Your task to perform on an android device: change text size in settings app Image 0: 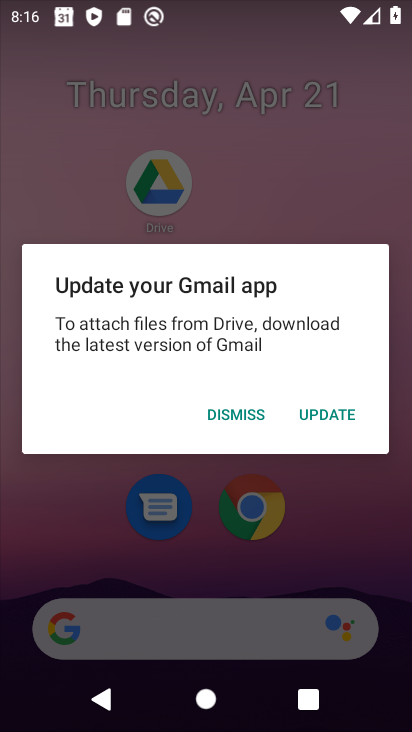
Step 0: press home button
Your task to perform on an android device: change text size in settings app Image 1: 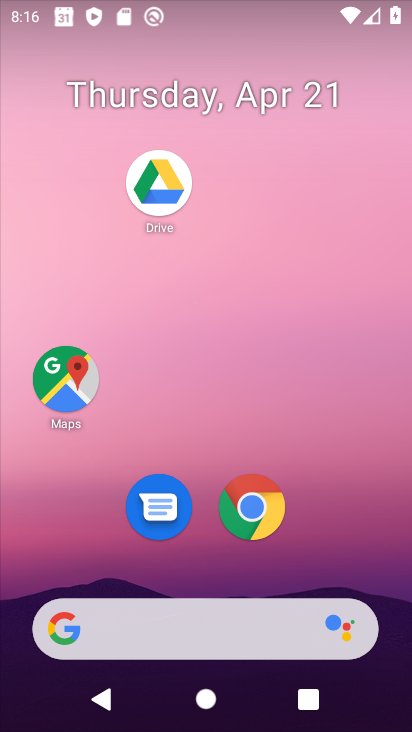
Step 1: drag from (355, 538) to (339, 135)
Your task to perform on an android device: change text size in settings app Image 2: 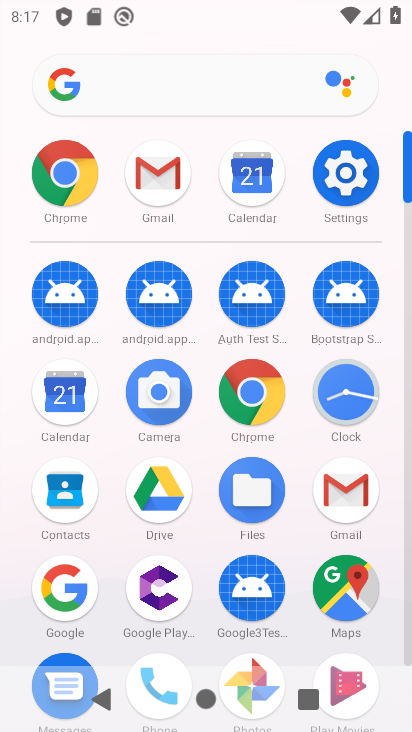
Step 2: click (342, 169)
Your task to perform on an android device: change text size in settings app Image 3: 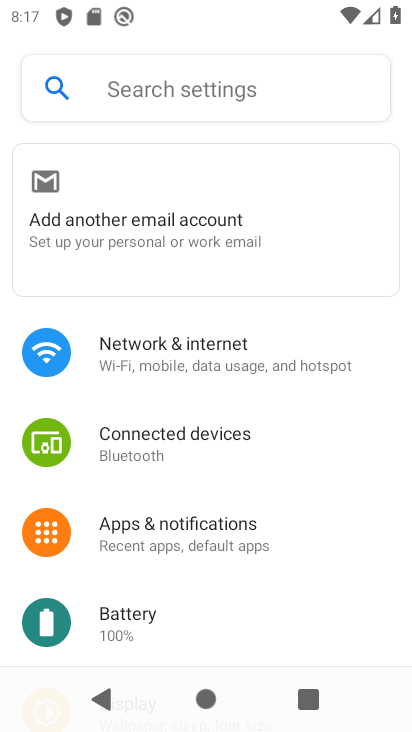
Step 3: drag from (360, 573) to (364, 404)
Your task to perform on an android device: change text size in settings app Image 4: 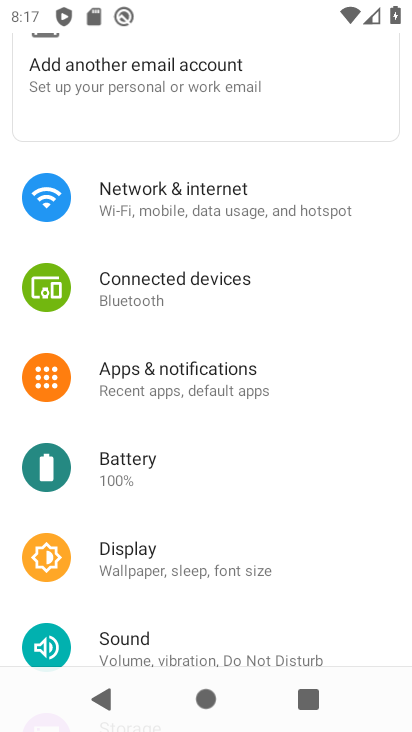
Step 4: drag from (343, 589) to (342, 457)
Your task to perform on an android device: change text size in settings app Image 5: 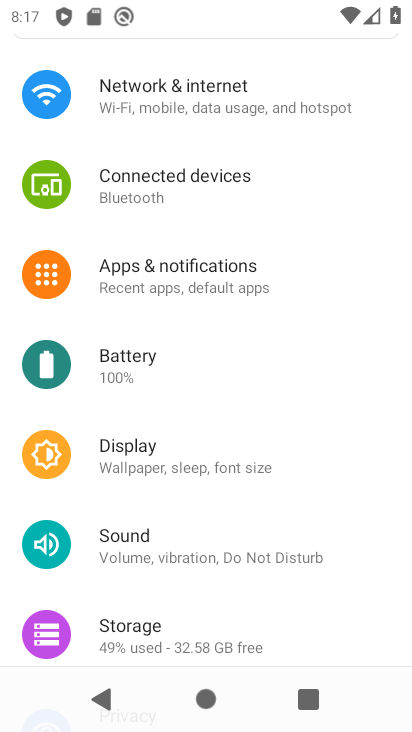
Step 5: drag from (352, 636) to (370, 474)
Your task to perform on an android device: change text size in settings app Image 6: 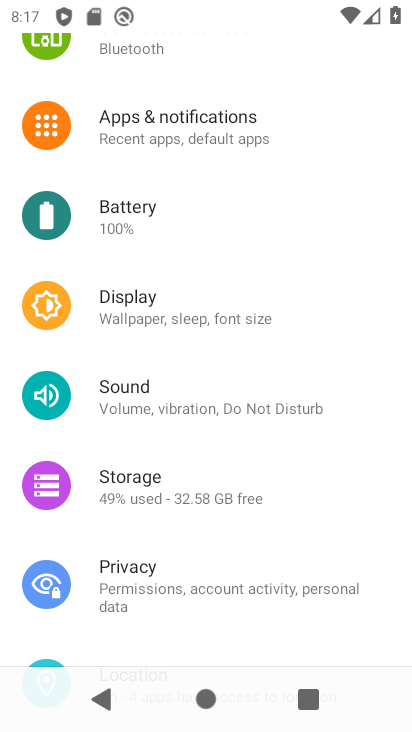
Step 6: drag from (365, 616) to (377, 438)
Your task to perform on an android device: change text size in settings app Image 7: 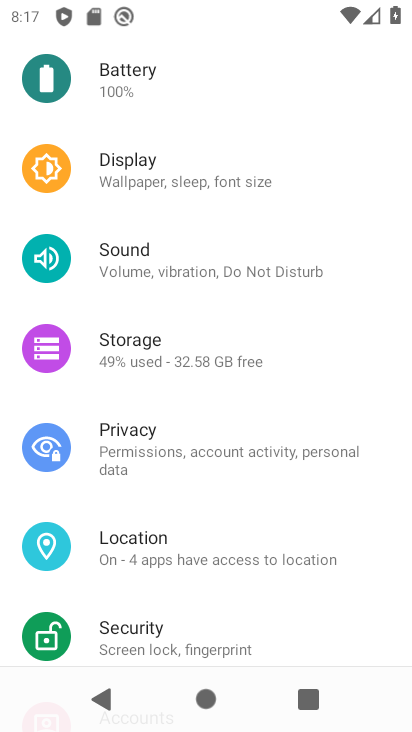
Step 7: drag from (373, 557) to (380, 373)
Your task to perform on an android device: change text size in settings app Image 8: 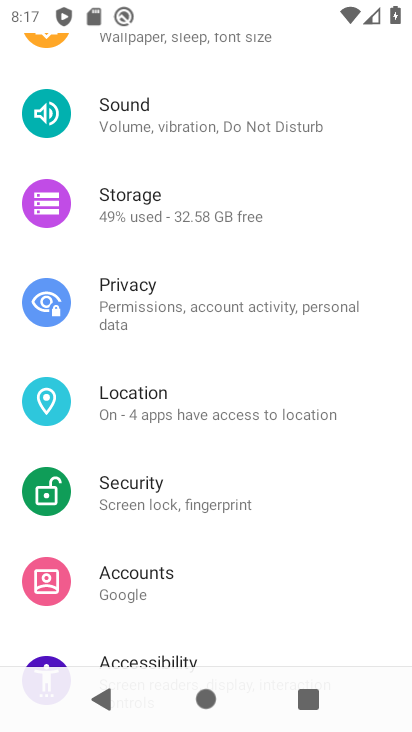
Step 8: drag from (361, 551) to (372, 349)
Your task to perform on an android device: change text size in settings app Image 9: 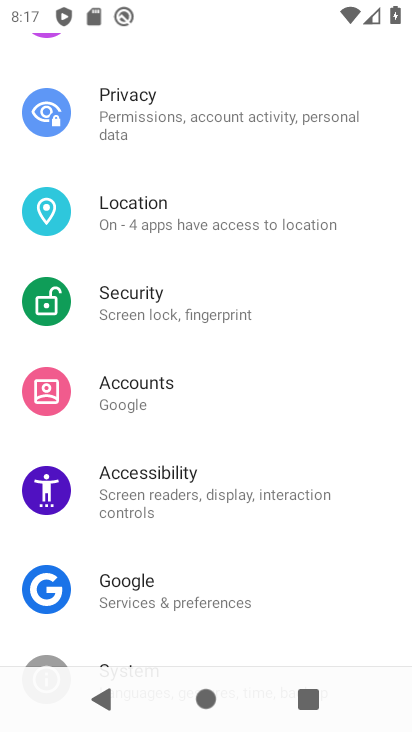
Step 9: drag from (355, 581) to (374, 348)
Your task to perform on an android device: change text size in settings app Image 10: 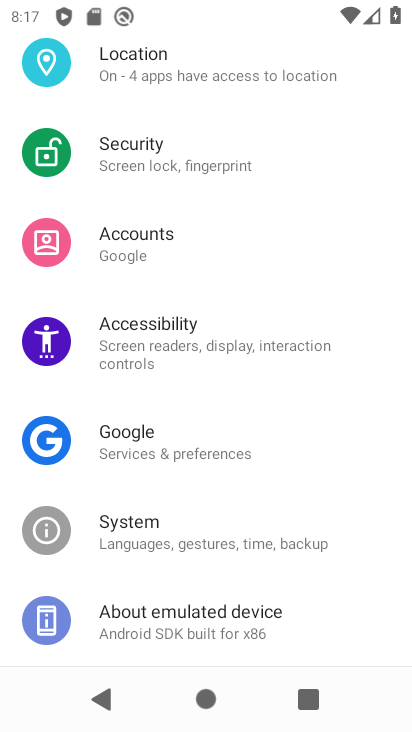
Step 10: drag from (374, 284) to (390, 430)
Your task to perform on an android device: change text size in settings app Image 11: 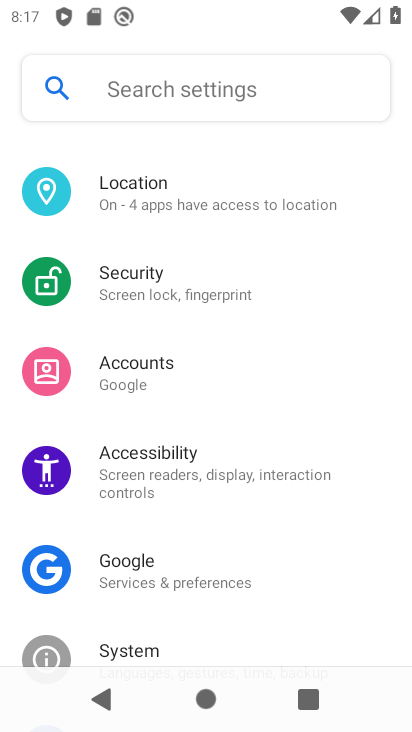
Step 11: drag from (375, 309) to (364, 458)
Your task to perform on an android device: change text size in settings app Image 12: 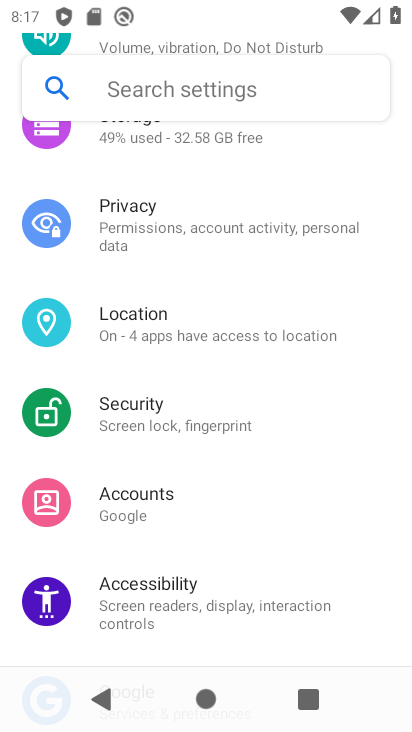
Step 12: drag from (373, 304) to (367, 445)
Your task to perform on an android device: change text size in settings app Image 13: 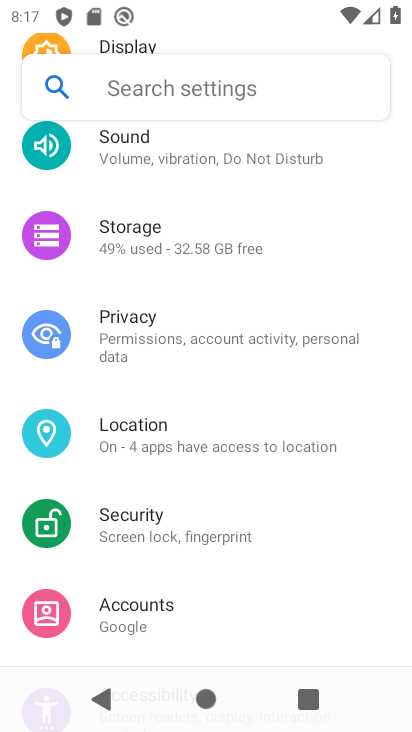
Step 13: drag from (374, 283) to (368, 445)
Your task to perform on an android device: change text size in settings app Image 14: 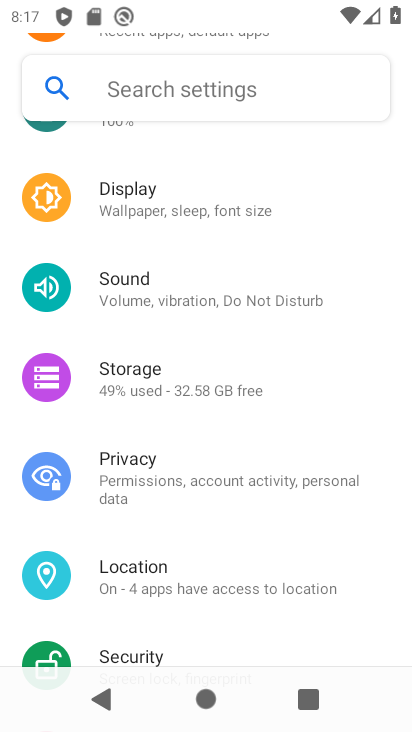
Step 14: drag from (371, 267) to (378, 398)
Your task to perform on an android device: change text size in settings app Image 15: 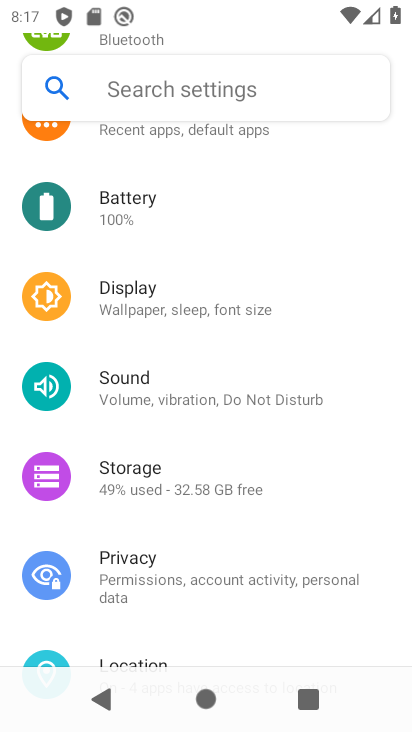
Step 15: drag from (378, 282) to (373, 413)
Your task to perform on an android device: change text size in settings app Image 16: 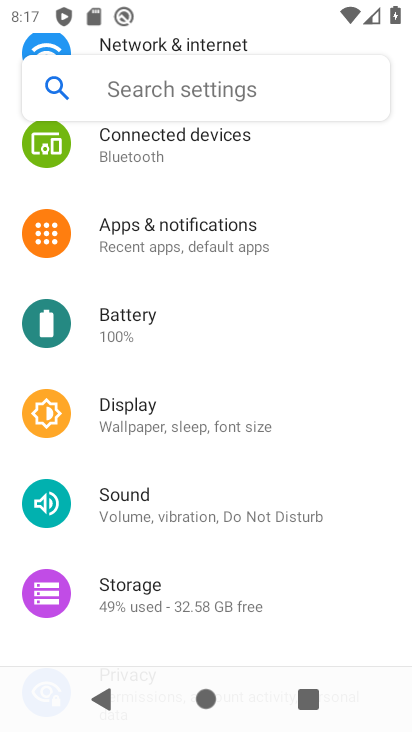
Step 16: click (233, 406)
Your task to perform on an android device: change text size in settings app Image 17: 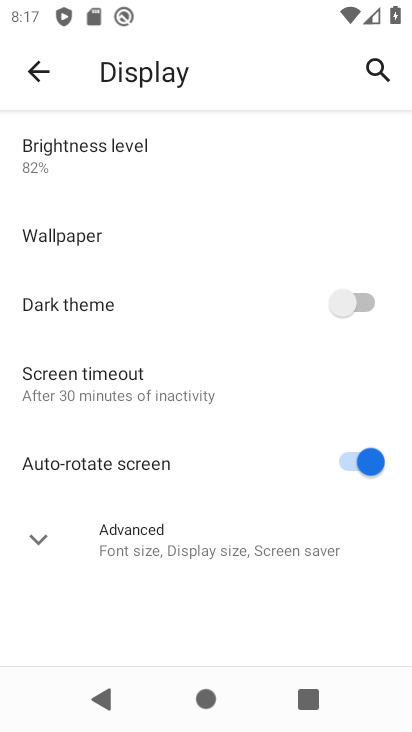
Step 17: click (199, 546)
Your task to perform on an android device: change text size in settings app Image 18: 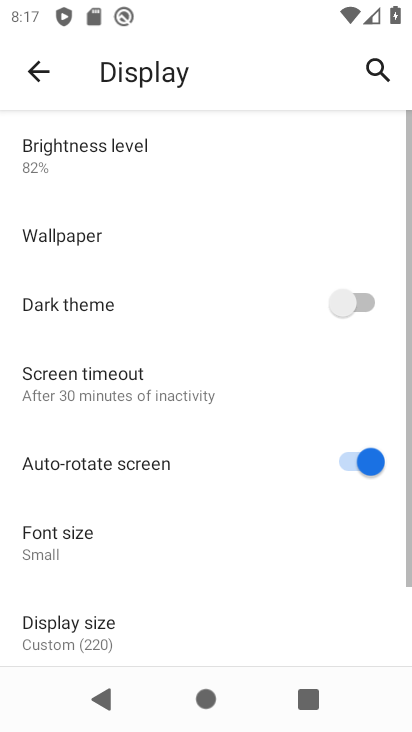
Step 18: drag from (214, 586) to (223, 443)
Your task to perform on an android device: change text size in settings app Image 19: 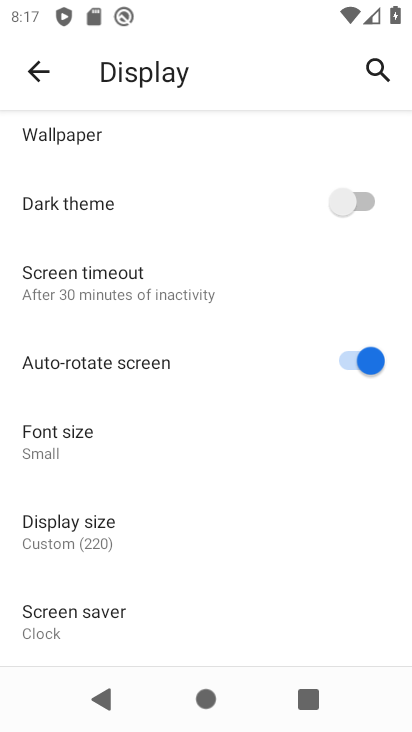
Step 19: click (94, 437)
Your task to perform on an android device: change text size in settings app Image 20: 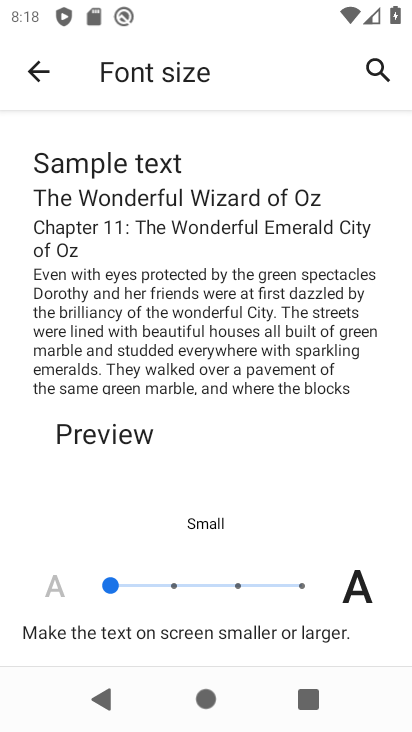
Step 20: click (173, 589)
Your task to perform on an android device: change text size in settings app Image 21: 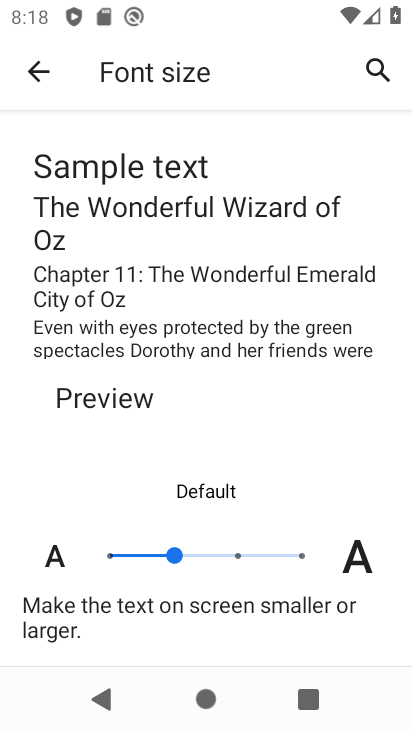
Step 21: task complete